Your task to perform on an android device: toggle improve location accuracy Image 0: 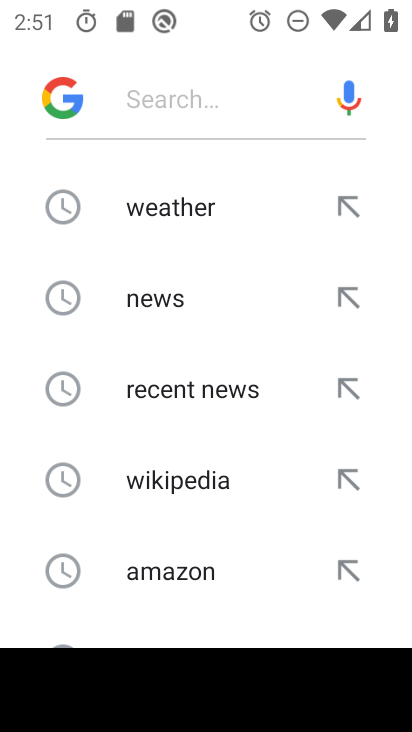
Step 0: press home button
Your task to perform on an android device: toggle improve location accuracy Image 1: 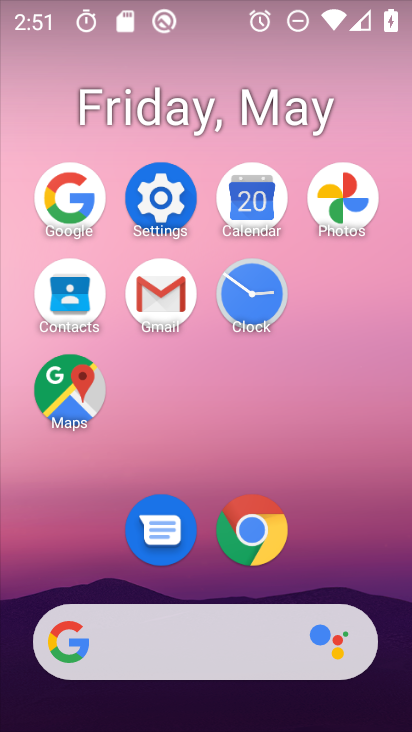
Step 1: click (161, 206)
Your task to perform on an android device: toggle improve location accuracy Image 2: 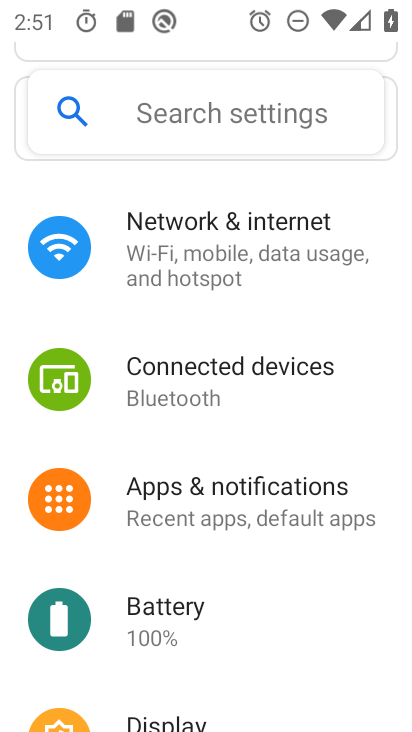
Step 2: drag from (274, 579) to (307, 118)
Your task to perform on an android device: toggle improve location accuracy Image 3: 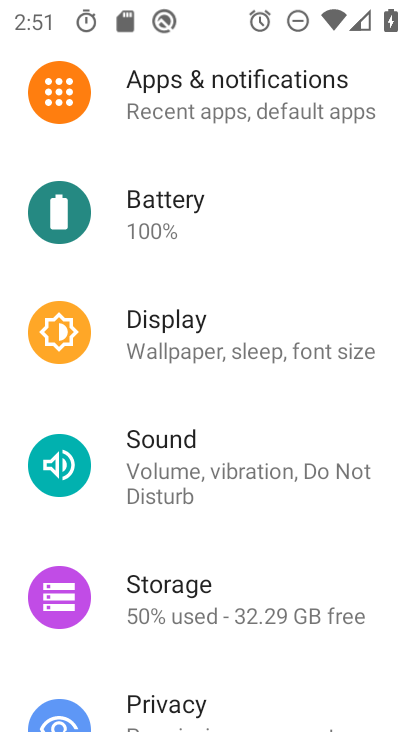
Step 3: drag from (290, 541) to (301, 88)
Your task to perform on an android device: toggle improve location accuracy Image 4: 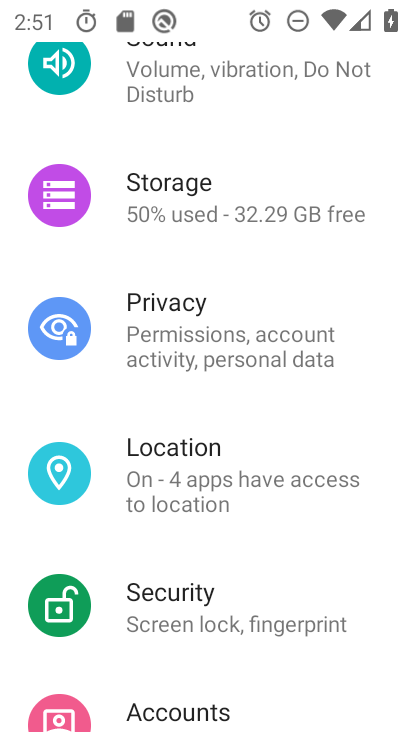
Step 4: click (269, 455)
Your task to perform on an android device: toggle improve location accuracy Image 5: 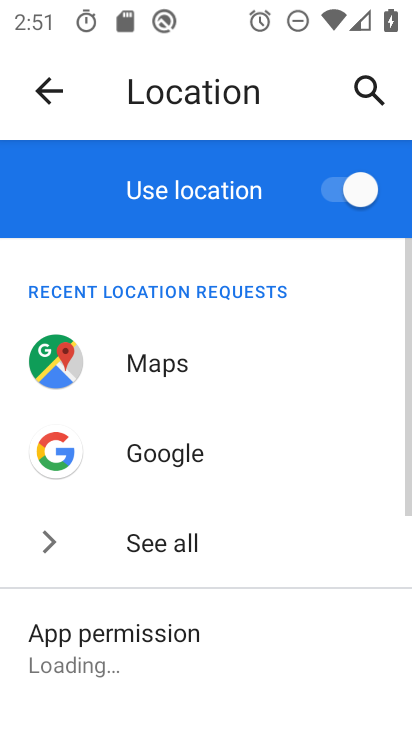
Step 5: drag from (292, 522) to (294, 187)
Your task to perform on an android device: toggle improve location accuracy Image 6: 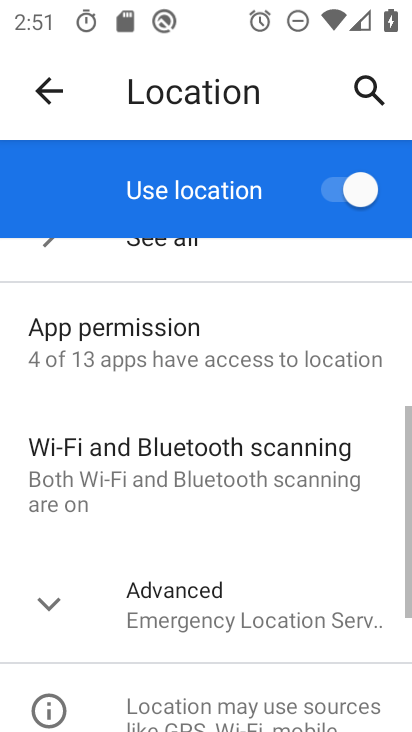
Step 6: click (250, 599)
Your task to perform on an android device: toggle improve location accuracy Image 7: 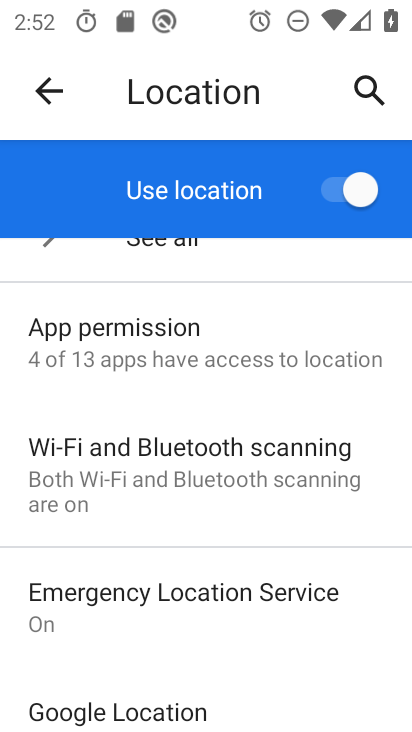
Step 7: drag from (274, 615) to (263, 169)
Your task to perform on an android device: toggle improve location accuracy Image 8: 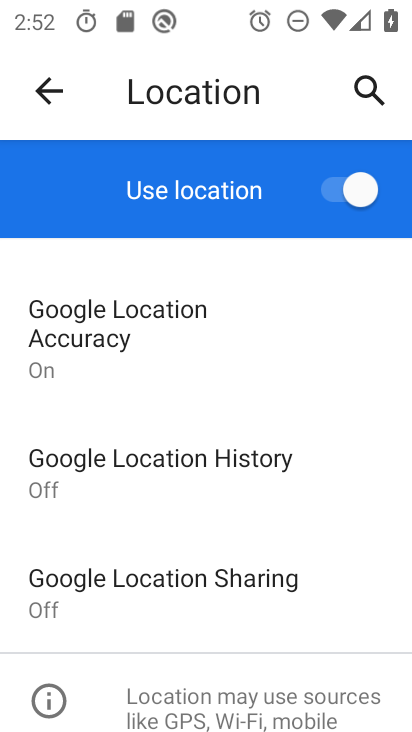
Step 8: drag from (182, 652) to (222, 200)
Your task to perform on an android device: toggle improve location accuracy Image 9: 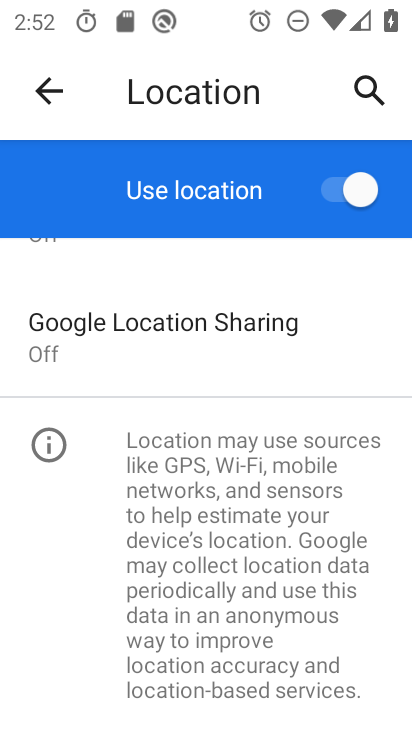
Step 9: drag from (264, 355) to (254, 554)
Your task to perform on an android device: toggle improve location accuracy Image 10: 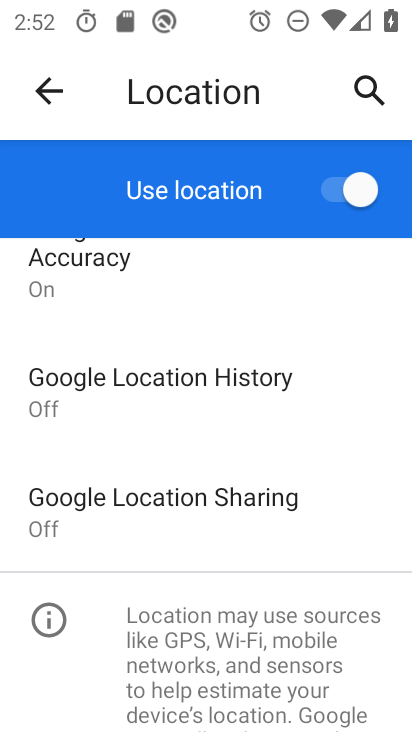
Step 10: drag from (348, 398) to (296, 575)
Your task to perform on an android device: toggle improve location accuracy Image 11: 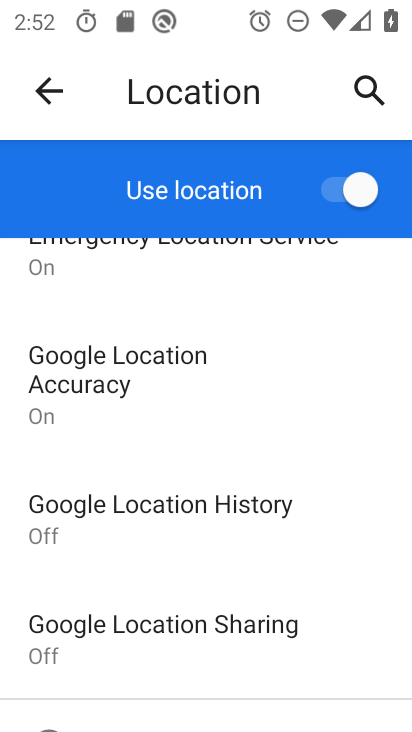
Step 11: click (147, 384)
Your task to perform on an android device: toggle improve location accuracy Image 12: 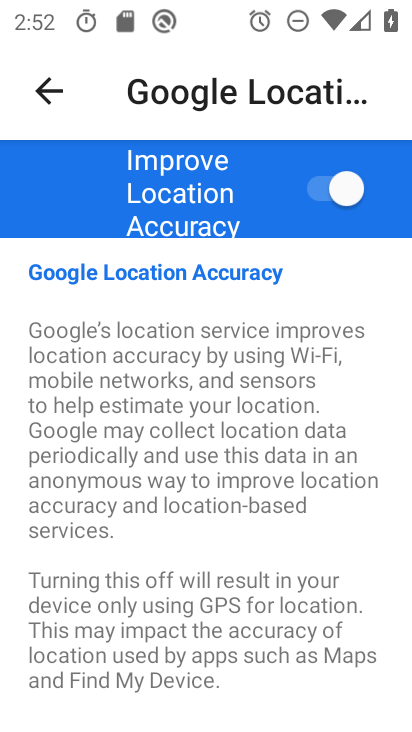
Step 12: click (352, 188)
Your task to perform on an android device: toggle improve location accuracy Image 13: 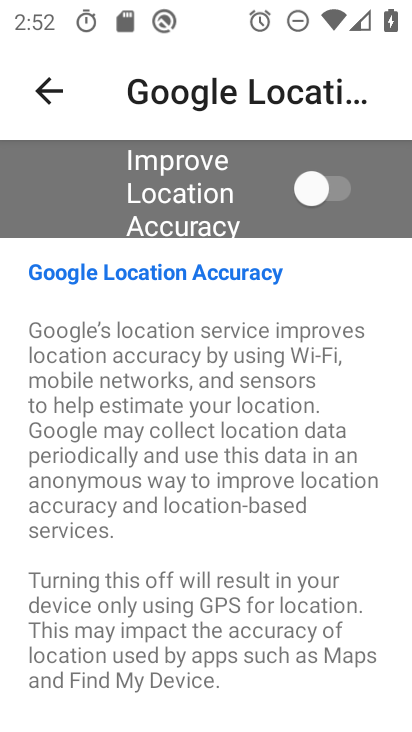
Step 13: task complete